Your task to perform on an android device: Show me productivity apps on the Play Store Image 0: 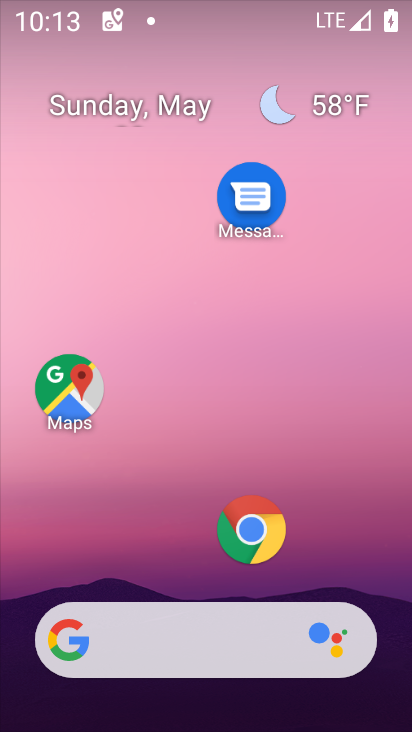
Step 0: drag from (179, 575) to (180, 214)
Your task to perform on an android device: Show me productivity apps on the Play Store Image 1: 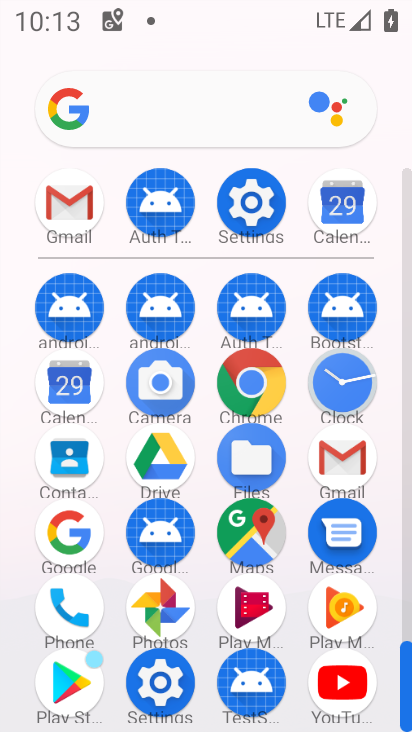
Step 1: click (70, 678)
Your task to perform on an android device: Show me productivity apps on the Play Store Image 2: 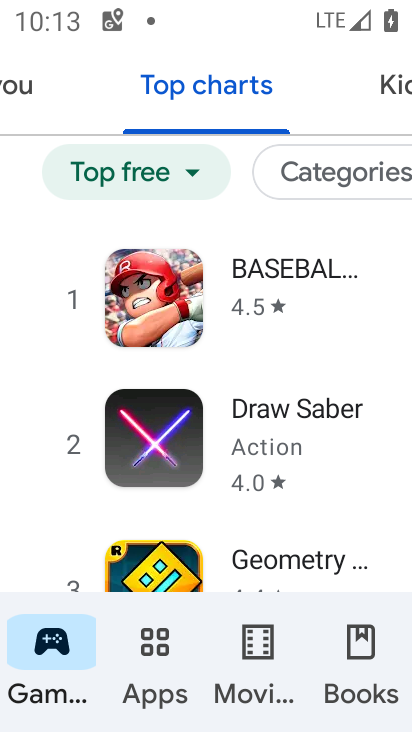
Step 2: click (148, 663)
Your task to perform on an android device: Show me productivity apps on the Play Store Image 3: 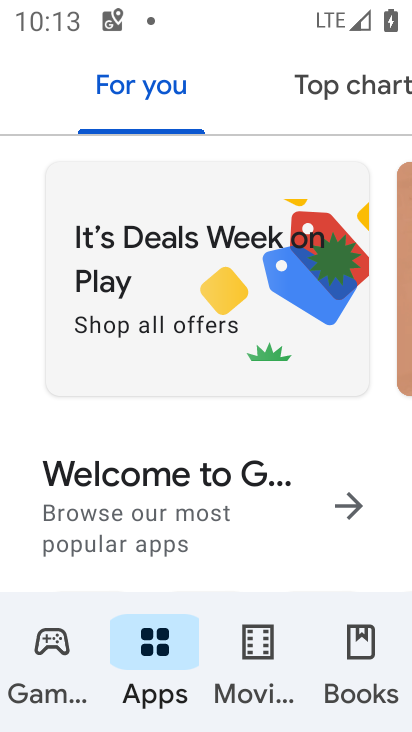
Step 3: drag from (338, 118) to (5, 92)
Your task to perform on an android device: Show me productivity apps on the Play Store Image 4: 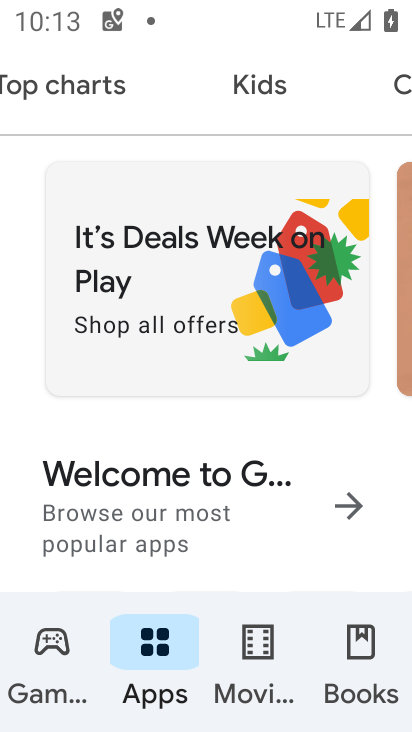
Step 4: drag from (394, 92) to (172, 83)
Your task to perform on an android device: Show me productivity apps on the Play Store Image 5: 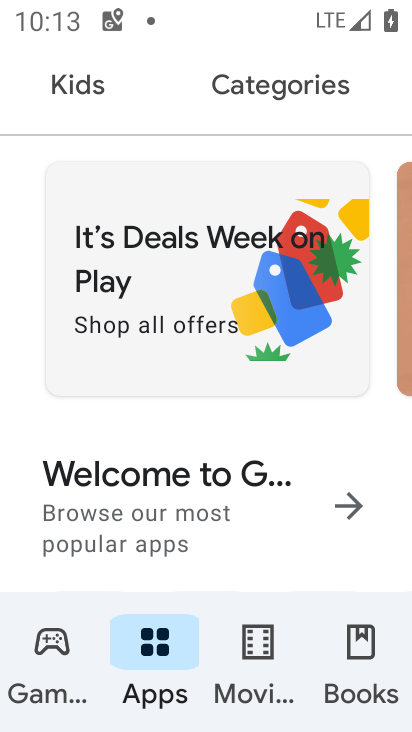
Step 5: click (288, 93)
Your task to perform on an android device: Show me productivity apps on the Play Store Image 6: 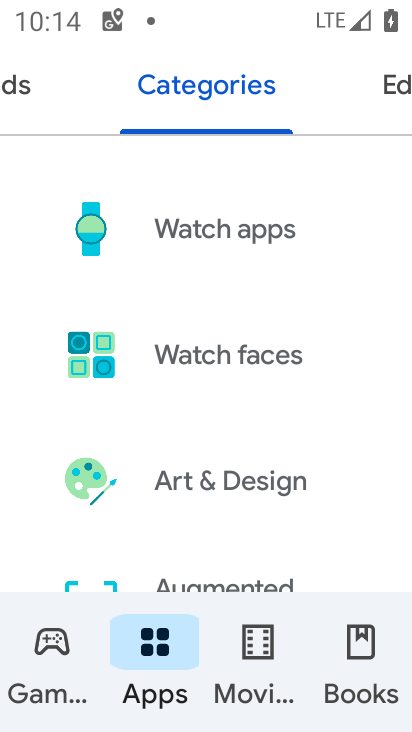
Step 6: drag from (239, 468) to (297, 4)
Your task to perform on an android device: Show me productivity apps on the Play Store Image 7: 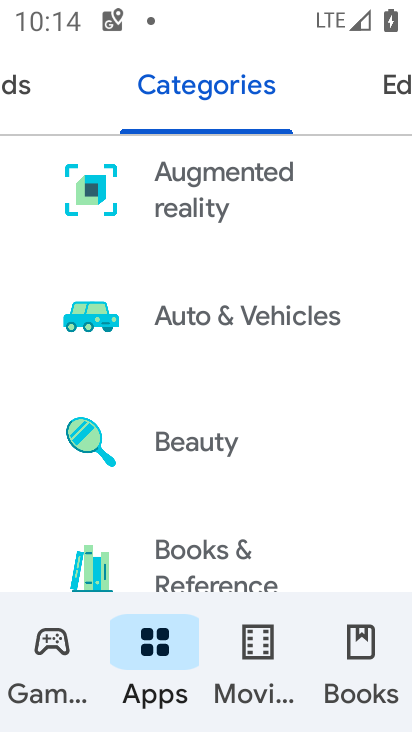
Step 7: drag from (242, 561) to (293, 136)
Your task to perform on an android device: Show me productivity apps on the Play Store Image 8: 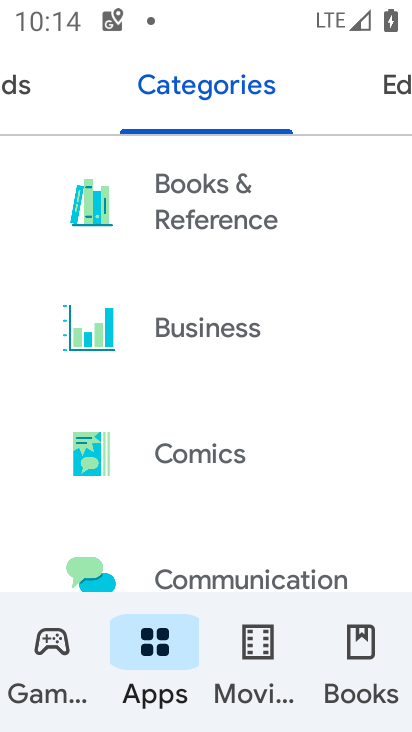
Step 8: drag from (257, 523) to (296, 17)
Your task to perform on an android device: Show me productivity apps on the Play Store Image 9: 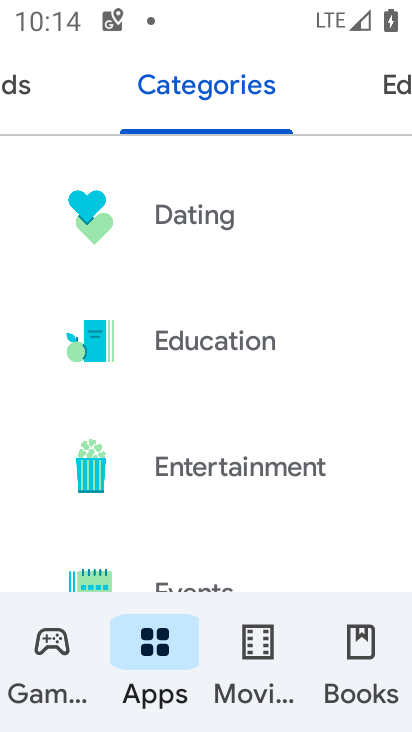
Step 9: drag from (226, 489) to (277, 26)
Your task to perform on an android device: Show me productivity apps on the Play Store Image 10: 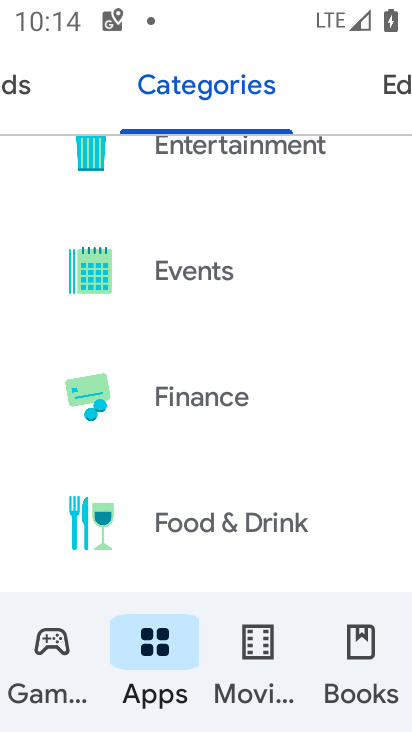
Step 10: drag from (225, 590) to (268, 5)
Your task to perform on an android device: Show me productivity apps on the Play Store Image 11: 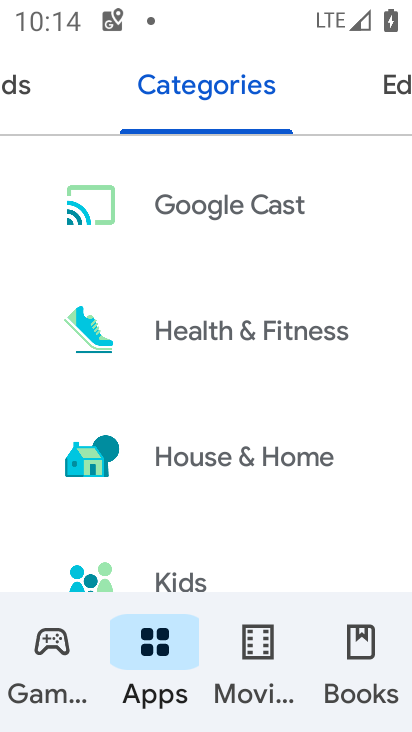
Step 11: drag from (231, 551) to (306, 6)
Your task to perform on an android device: Show me productivity apps on the Play Store Image 12: 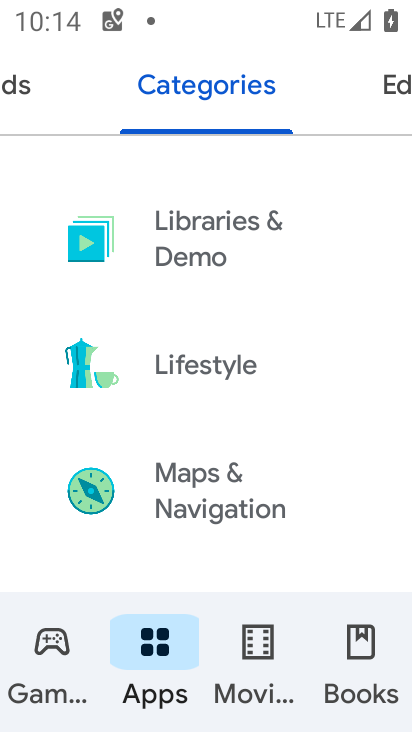
Step 12: drag from (221, 493) to (316, 23)
Your task to perform on an android device: Show me productivity apps on the Play Store Image 13: 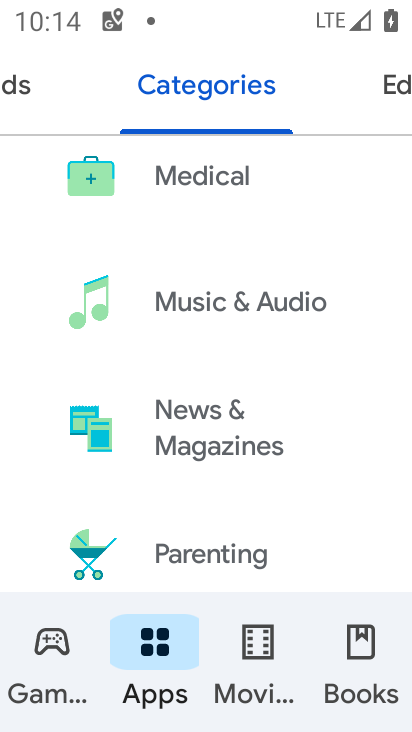
Step 13: drag from (251, 481) to (307, 78)
Your task to perform on an android device: Show me productivity apps on the Play Store Image 14: 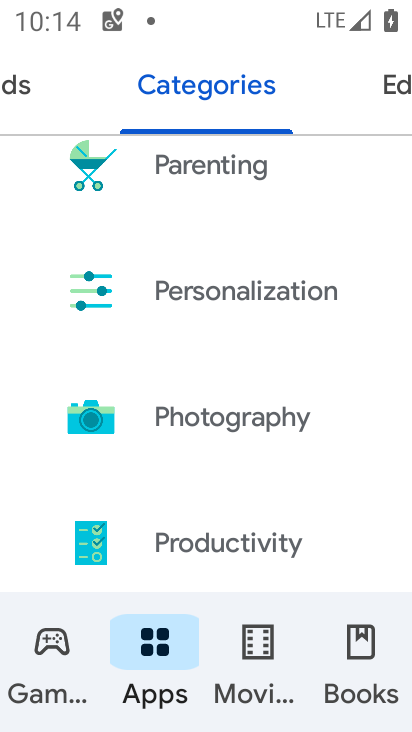
Step 14: click (257, 547)
Your task to perform on an android device: Show me productivity apps on the Play Store Image 15: 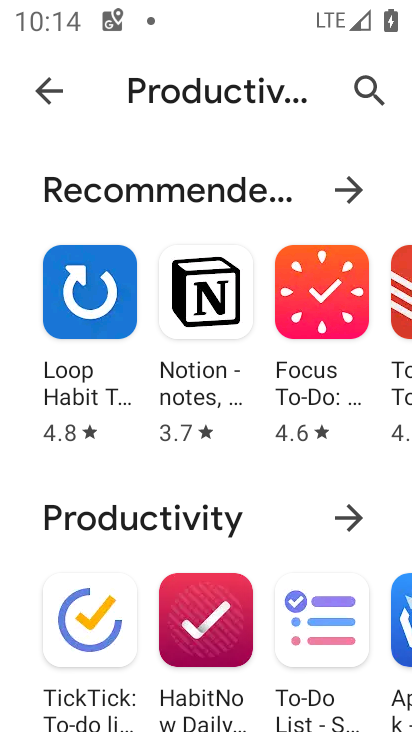
Step 15: task complete